Your task to perform on an android device: Go to Maps Image 0: 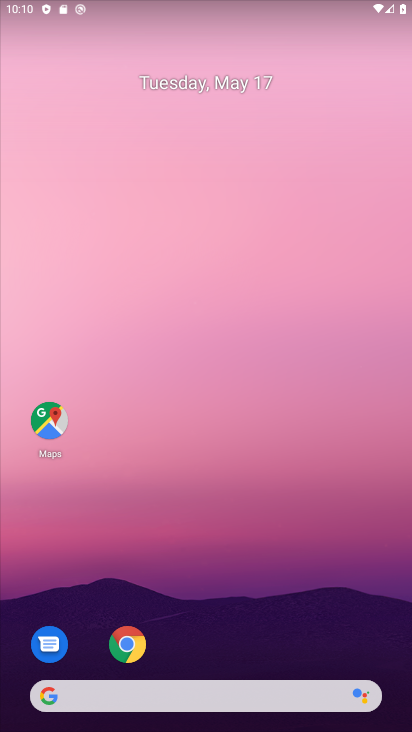
Step 0: click (50, 431)
Your task to perform on an android device: Go to Maps Image 1: 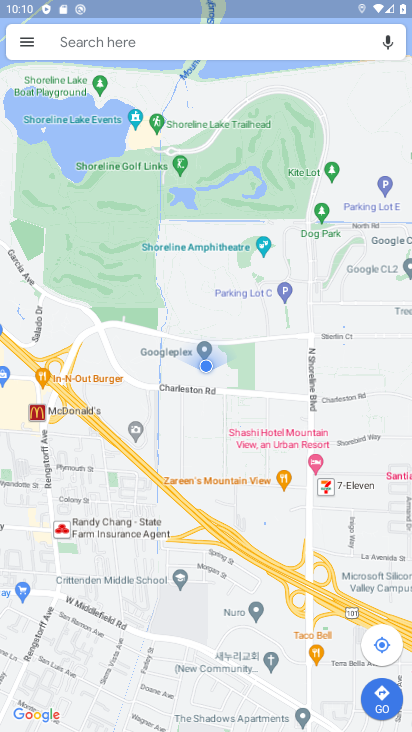
Step 1: task complete